Your task to perform on an android device: Do I have any events this weekend? Image 0: 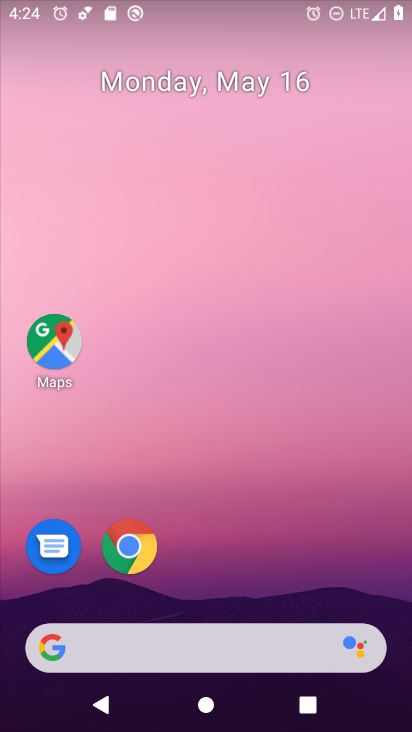
Step 0: drag from (322, 572) to (329, 121)
Your task to perform on an android device: Do I have any events this weekend? Image 1: 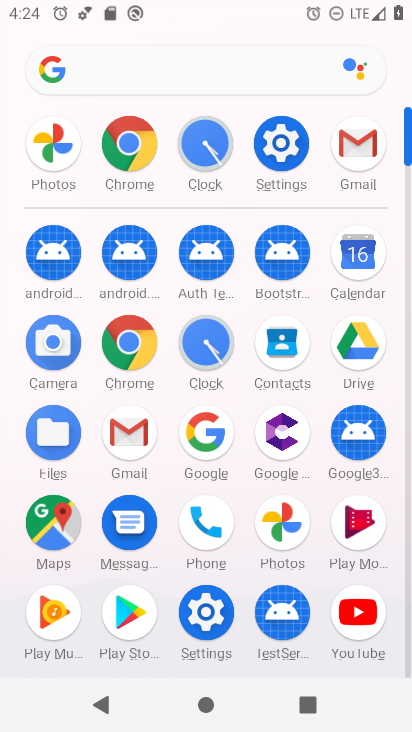
Step 1: click (363, 264)
Your task to perform on an android device: Do I have any events this weekend? Image 2: 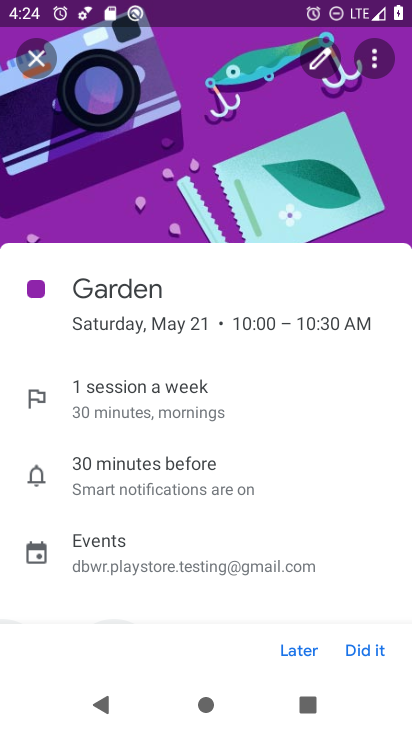
Step 2: click (39, 62)
Your task to perform on an android device: Do I have any events this weekend? Image 3: 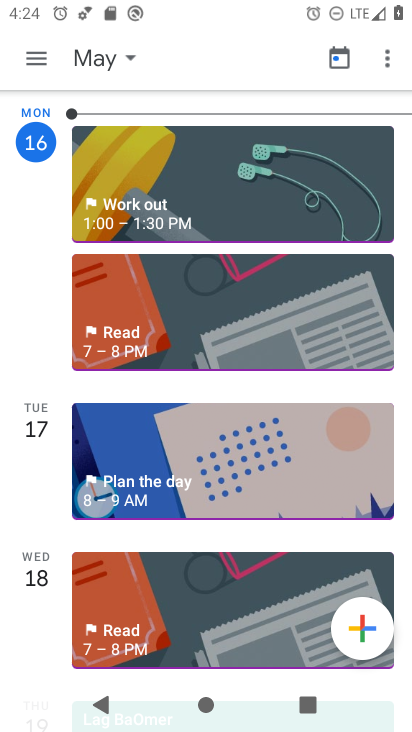
Step 3: click (122, 57)
Your task to perform on an android device: Do I have any events this weekend? Image 4: 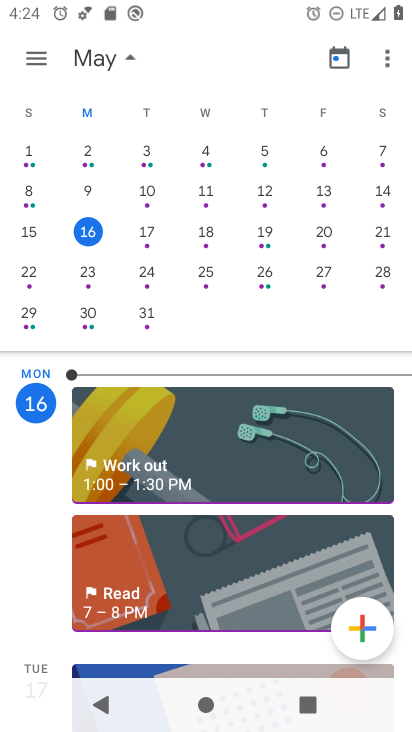
Step 4: click (383, 232)
Your task to perform on an android device: Do I have any events this weekend? Image 5: 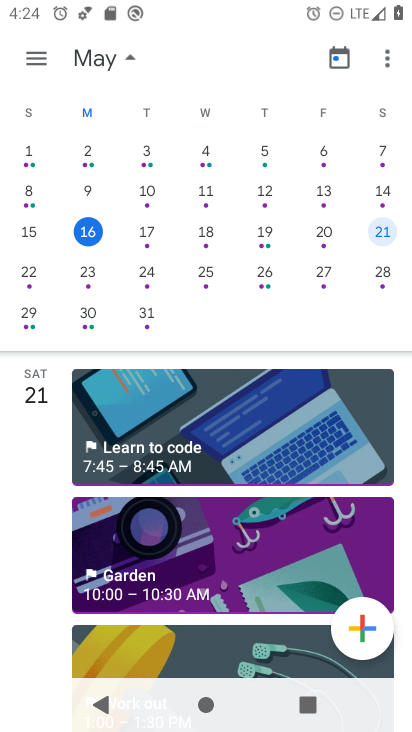
Step 5: task complete